Your task to perform on an android device: Is it going to rain today? Image 0: 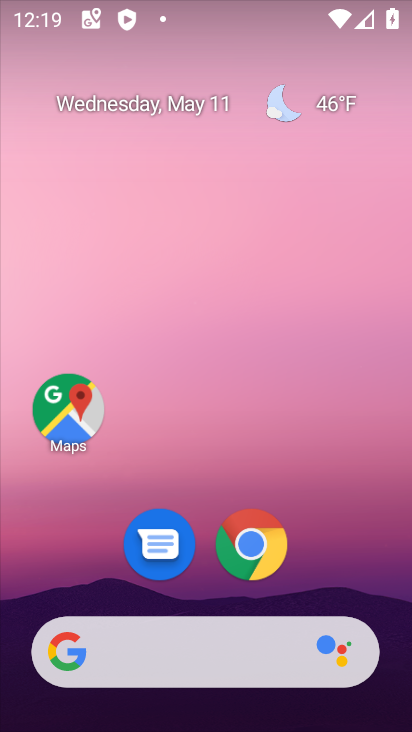
Step 0: click (331, 107)
Your task to perform on an android device: Is it going to rain today? Image 1: 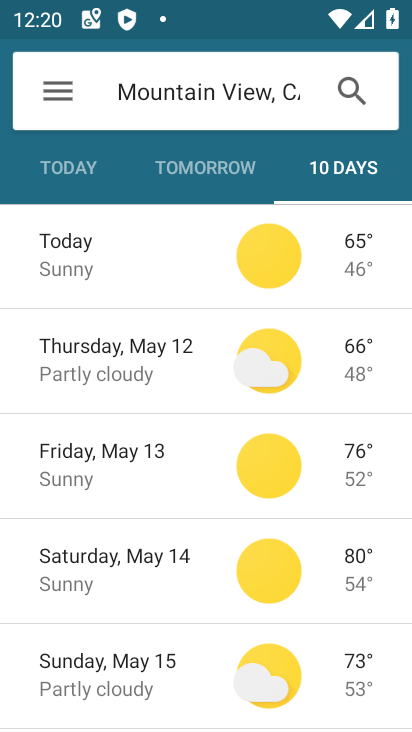
Step 1: click (74, 166)
Your task to perform on an android device: Is it going to rain today? Image 2: 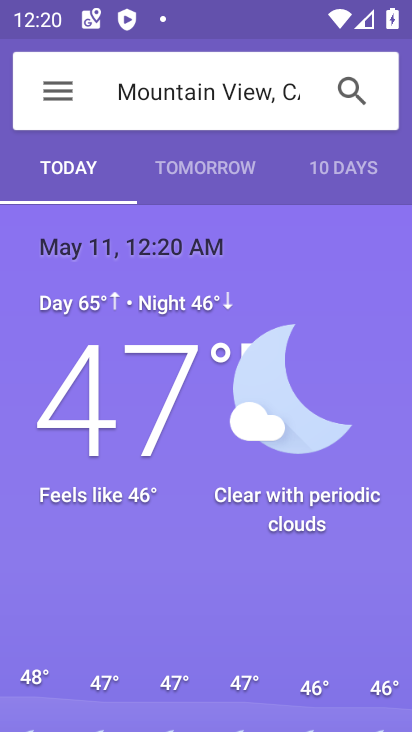
Step 2: drag from (286, 648) to (309, 232)
Your task to perform on an android device: Is it going to rain today? Image 3: 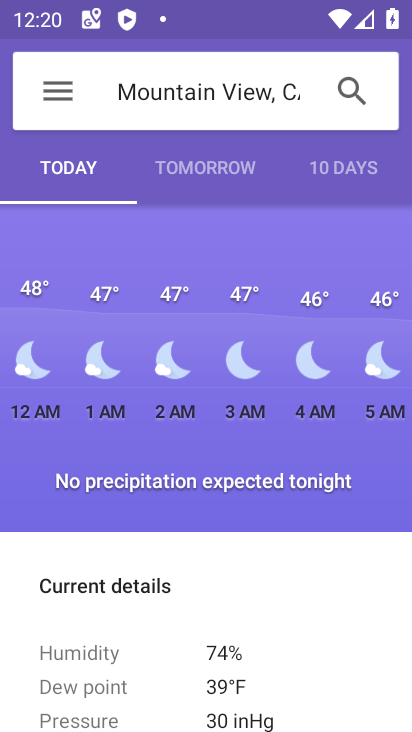
Step 3: drag from (340, 381) to (47, 350)
Your task to perform on an android device: Is it going to rain today? Image 4: 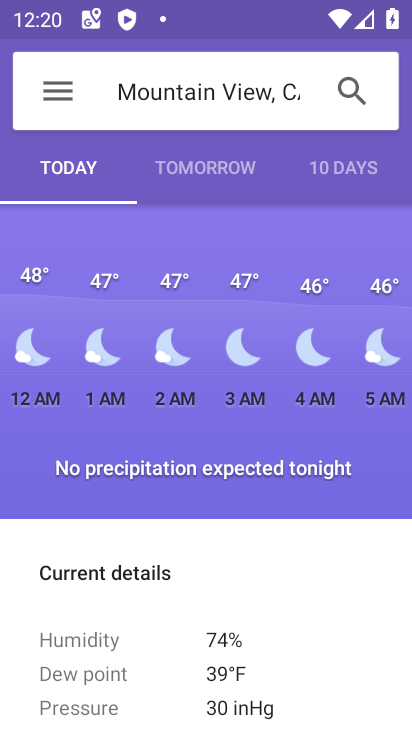
Step 4: drag from (30, 359) to (374, 339)
Your task to perform on an android device: Is it going to rain today? Image 5: 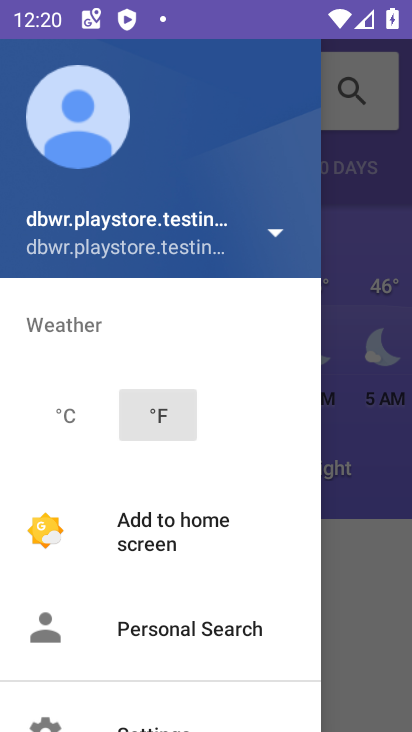
Step 5: click (387, 315)
Your task to perform on an android device: Is it going to rain today? Image 6: 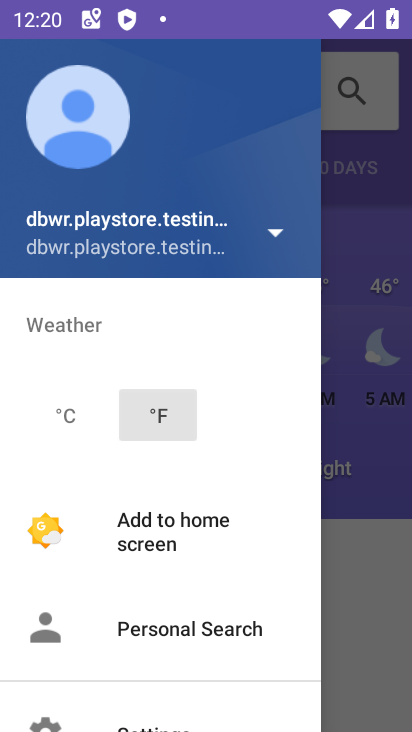
Step 6: task complete